Your task to perform on an android device: check the backup settings in the google photos Image 0: 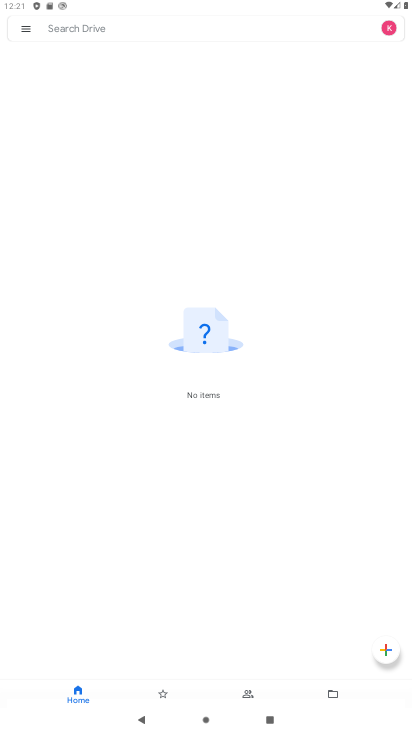
Step 0: press home button
Your task to perform on an android device: check the backup settings in the google photos Image 1: 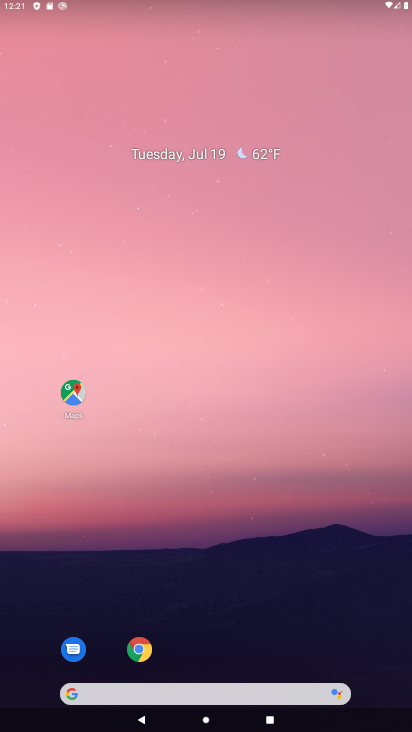
Step 1: drag from (213, 640) to (222, 243)
Your task to perform on an android device: check the backup settings in the google photos Image 2: 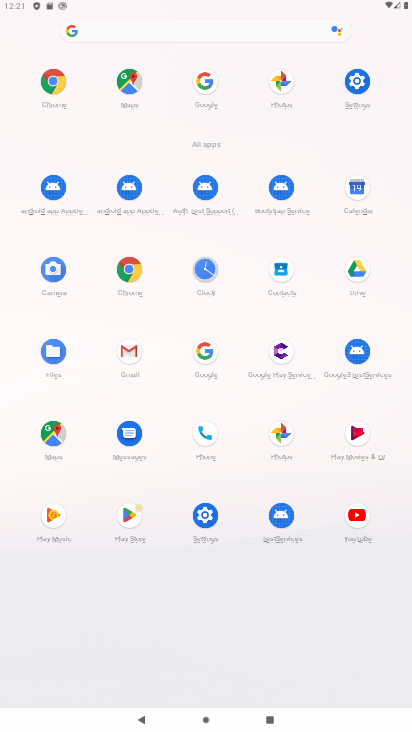
Step 2: click (282, 431)
Your task to perform on an android device: check the backup settings in the google photos Image 3: 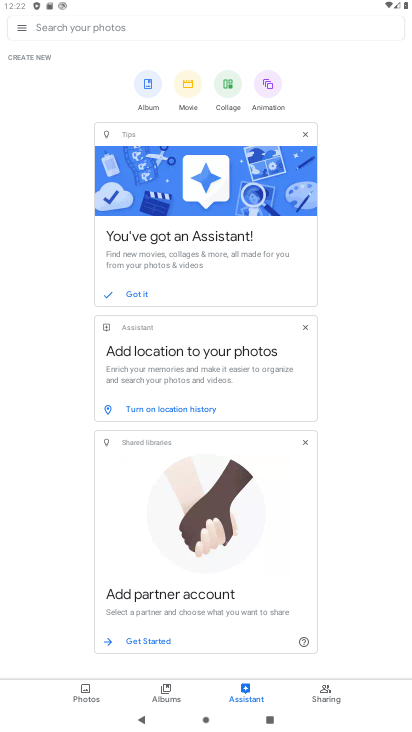
Step 3: click (20, 32)
Your task to perform on an android device: check the backup settings in the google photos Image 4: 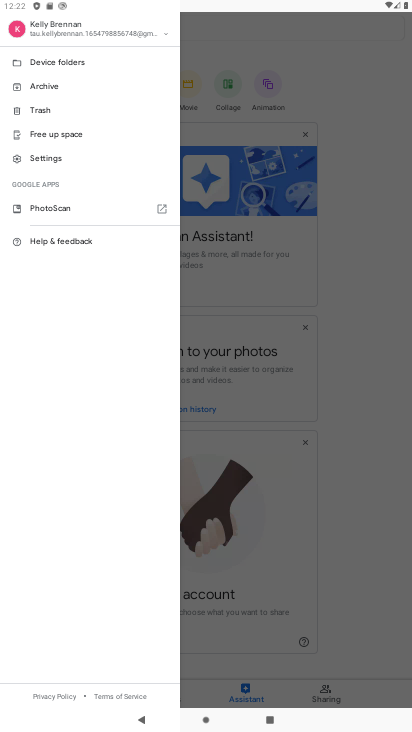
Step 4: click (34, 152)
Your task to perform on an android device: check the backup settings in the google photos Image 5: 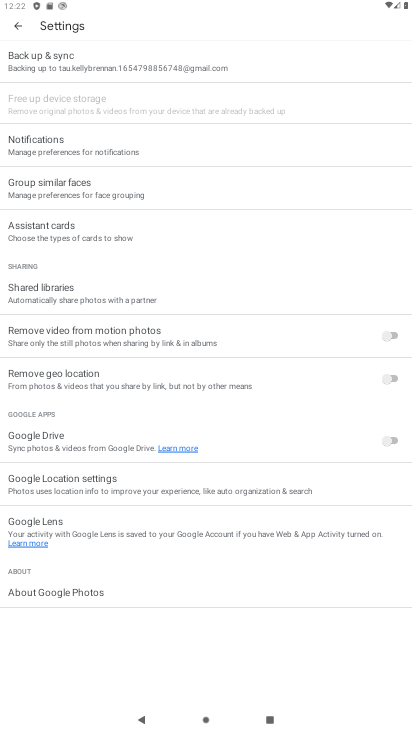
Step 5: click (47, 55)
Your task to perform on an android device: check the backup settings in the google photos Image 6: 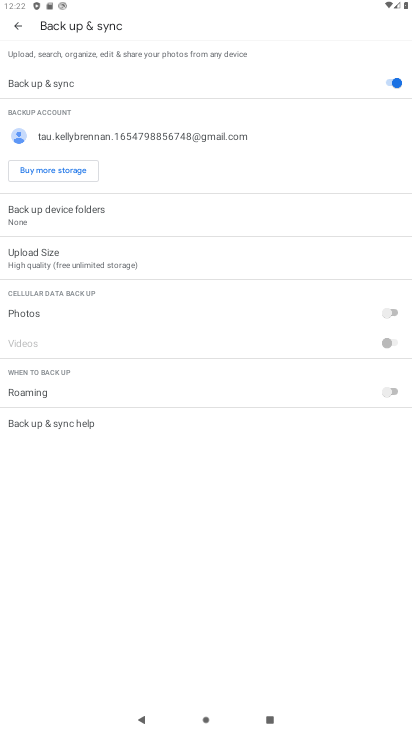
Step 6: task complete